Your task to perform on an android device: set default search engine in the chrome app Image 0: 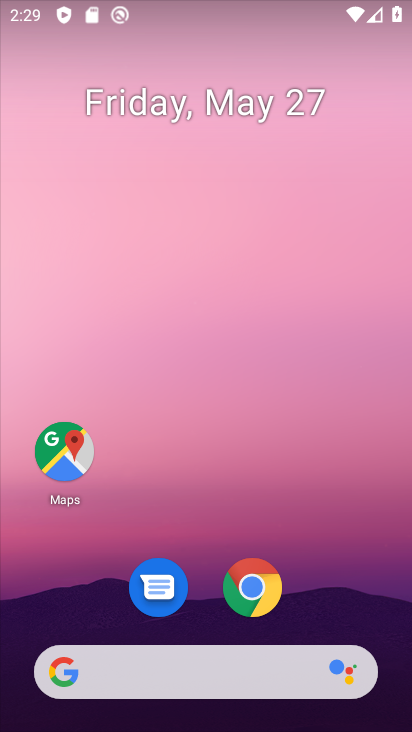
Step 0: press home button
Your task to perform on an android device: set default search engine in the chrome app Image 1: 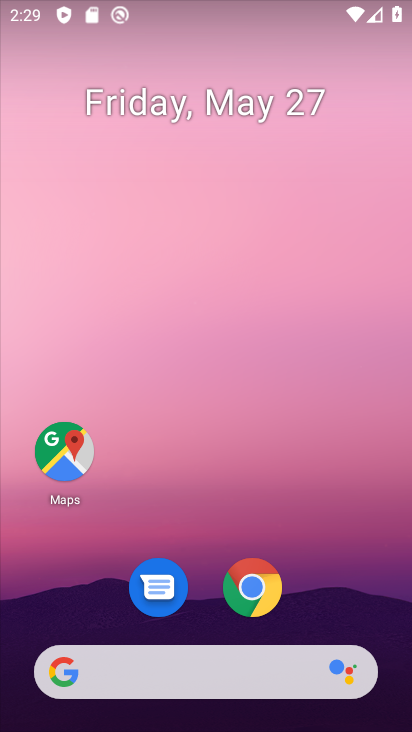
Step 1: click (253, 593)
Your task to perform on an android device: set default search engine in the chrome app Image 2: 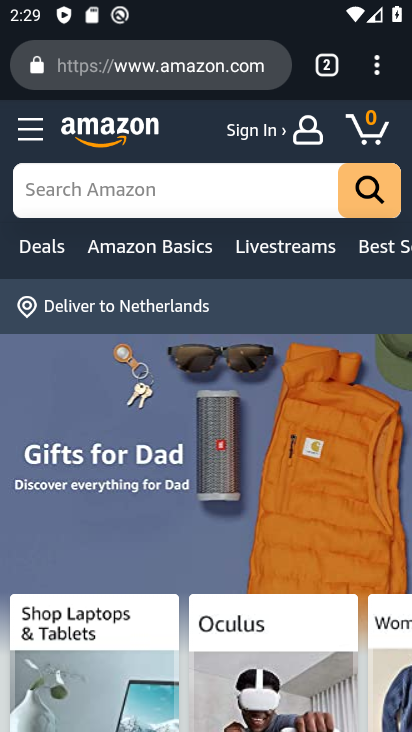
Step 2: drag from (381, 66) to (149, 642)
Your task to perform on an android device: set default search engine in the chrome app Image 3: 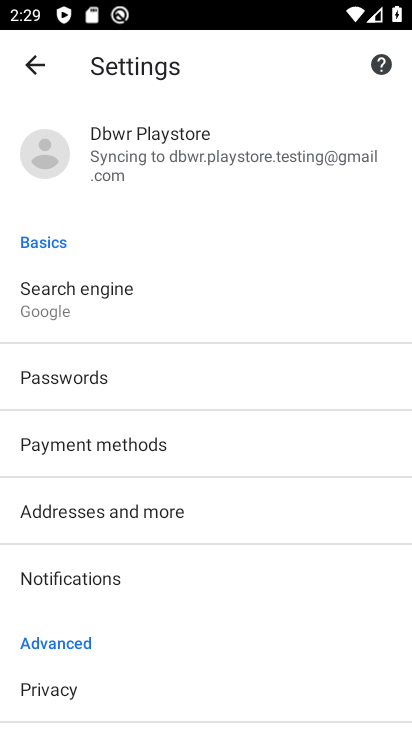
Step 3: click (63, 291)
Your task to perform on an android device: set default search engine in the chrome app Image 4: 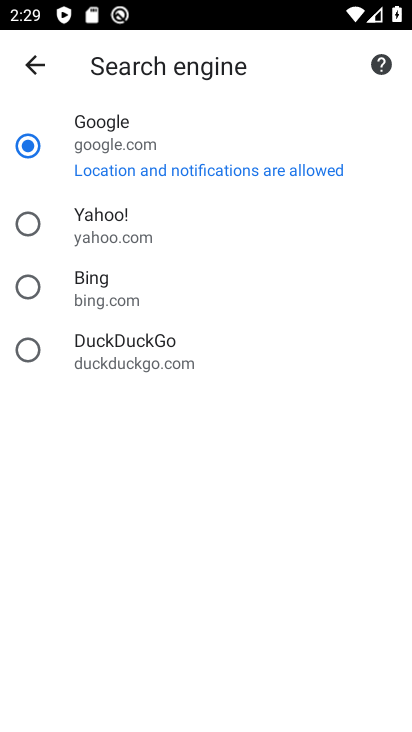
Step 4: click (34, 233)
Your task to perform on an android device: set default search engine in the chrome app Image 5: 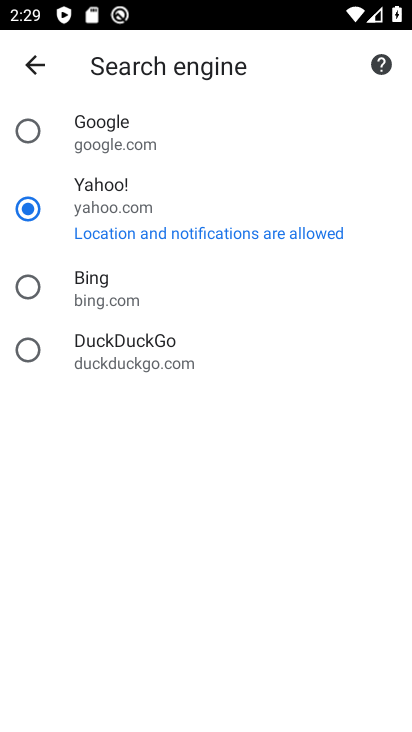
Step 5: task complete